Your task to perform on an android device: turn off location history Image 0: 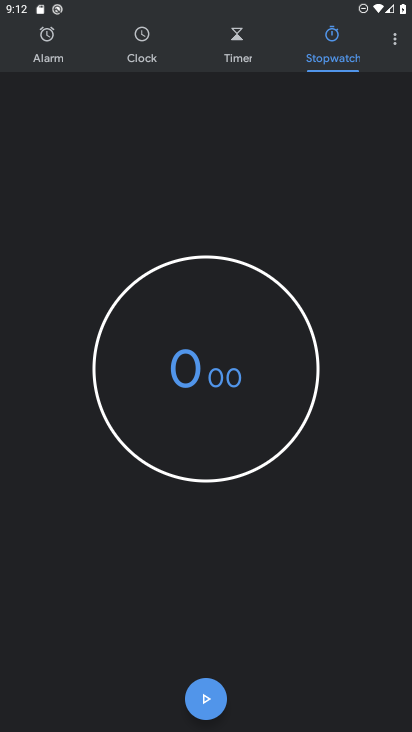
Step 0: press home button
Your task to perform on an android device: turn off location history Image 1: 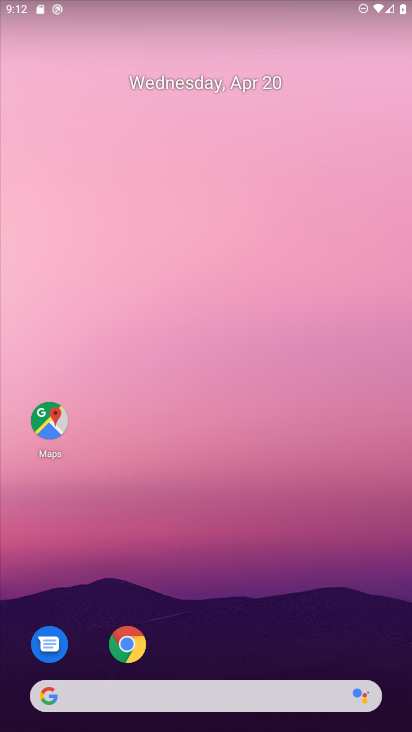
Step 1: drag from (356, 614) to (251, 52)
Your task to perform on an android device: turn off location history Image 2: 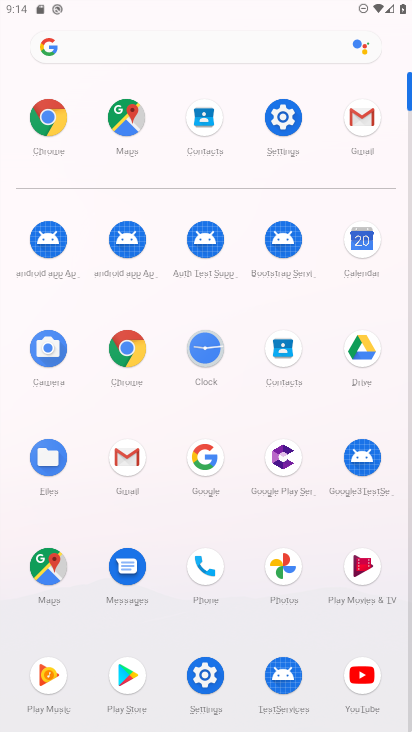
Step 2: click (212, 666)
Your task to perform on an android device: turn off location history Image 3: 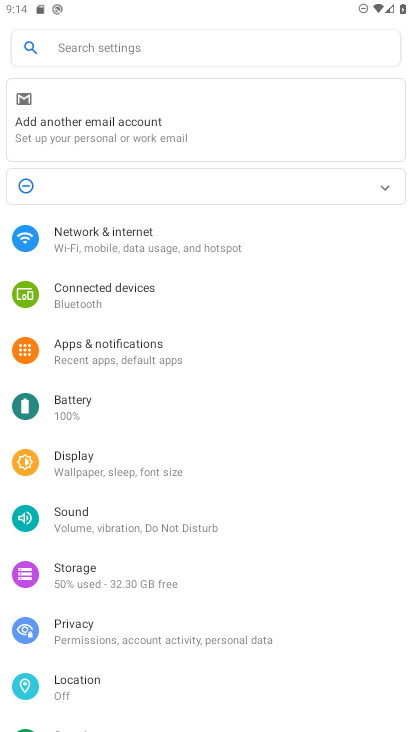
Step 3: click (81, 686)
Your task to perform on an android device: turn off location history Image 4: 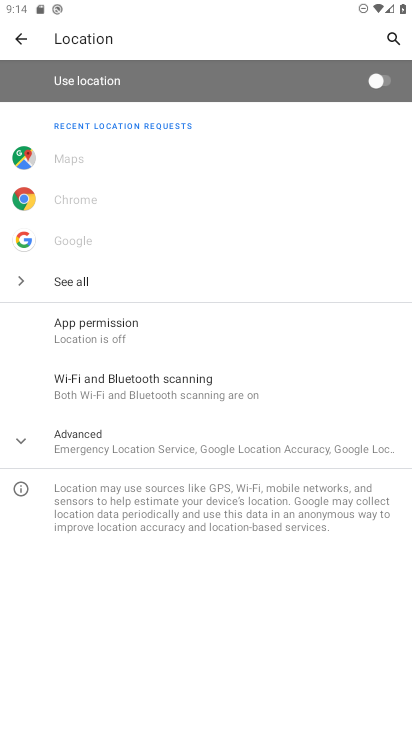
Step 4: click (81, 437)
Your task to perform on an android device: turn off location history Image 5: 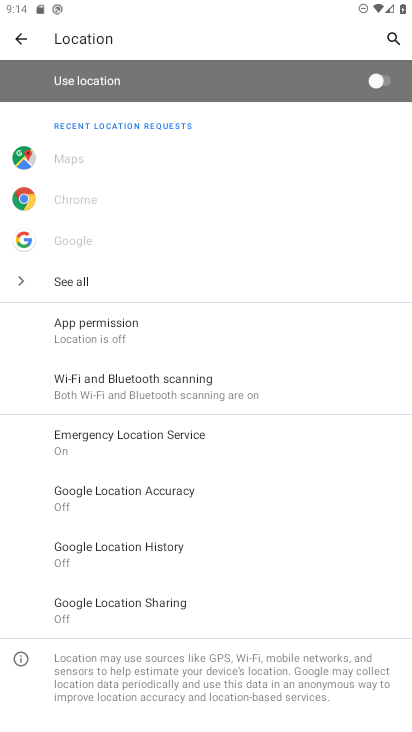
Step 5: click (153, 545)
Your task to perform on an android device: turn off location history Image 6: 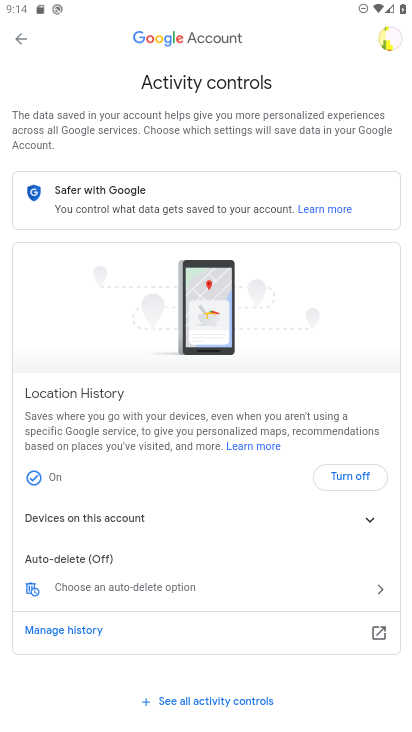
Step 6: task complete